Your task to perform on an android device: allow notifications from all sites in the chrome app Image 0: 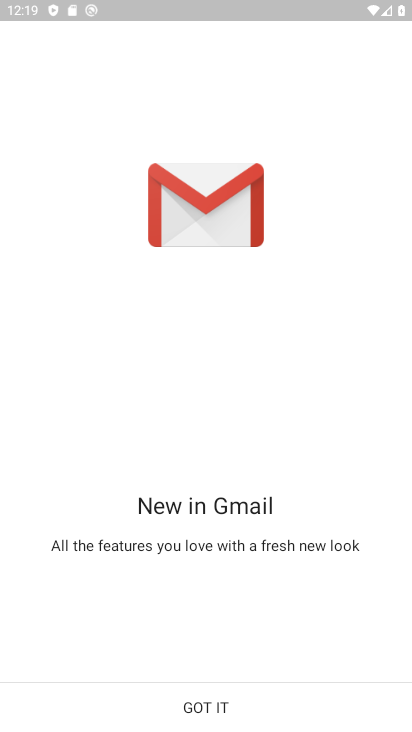
Step 0: press home button
Your task to perform on an android device: allow notifications from all sites in the chrome app Image 1: 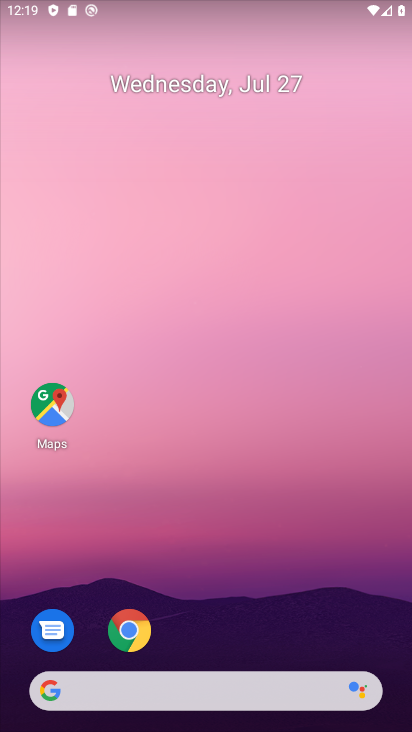
Step 1: drag from (220, 641) to (207, 107)
Your task to perform on an android device: allow notifications from all sites in the chrome app Image 2: 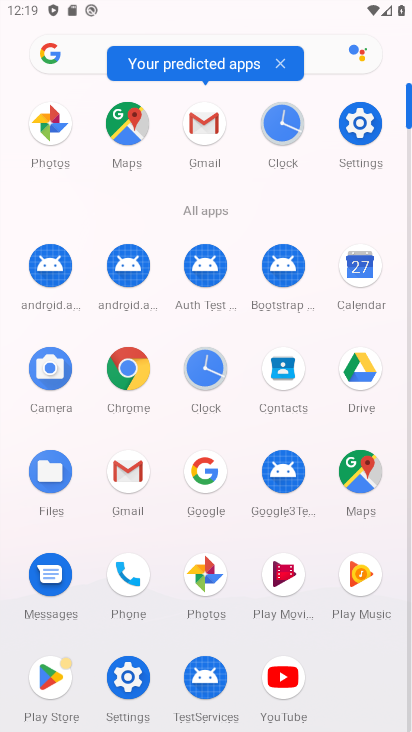
Step 2: click (115, 364)
Your task to perform on an android device: allow notifications from all sites in the chrome app Image 3: 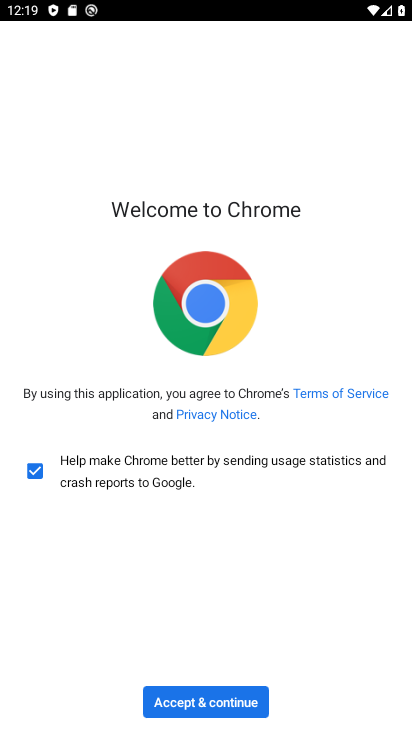
Step 3: click (211, 692)
Your task to perform on an android device: allow notifications from all sites in the chrome app Image 4: 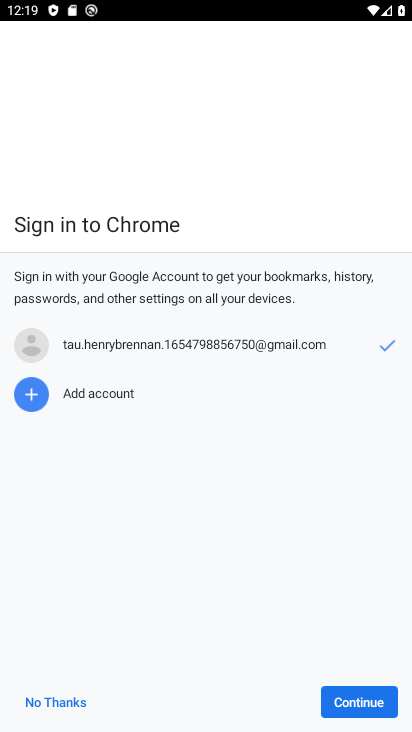
Step 4: click (329, 704)
Your task to perform on an android device: allow notifications from all sites in the chrome app Image 5: 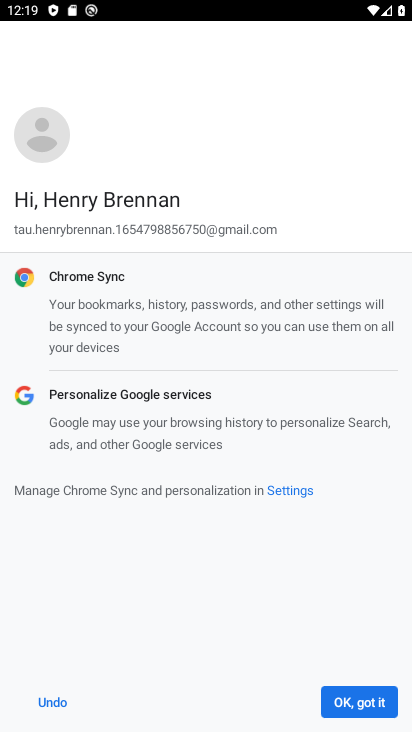
Step 5: click (329, 704)
Your task to perform on an android device: allow notifications from all sites in the chrome app Image 6: 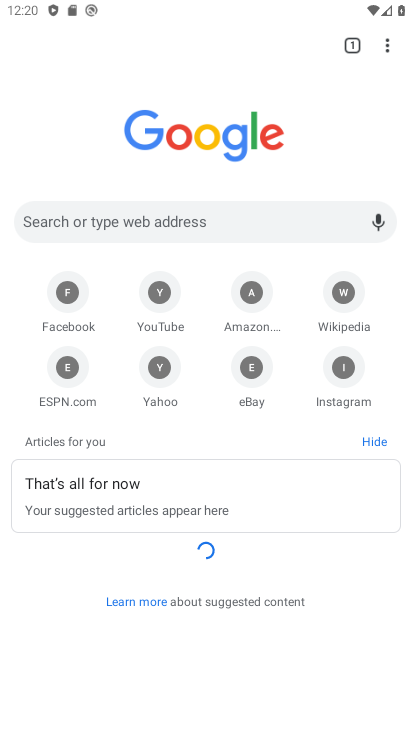
Step 6: click (385, 39)
Your task to perform on an android device: allow notifications from all sites in the chrome app Image 7: 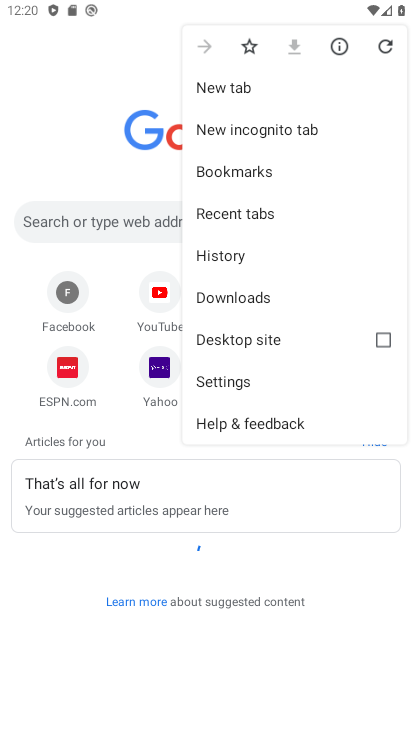
Step 7: click (227, 379)
Your task to perform on an android device: allow notifications from all sites in the chrome app Image 8: 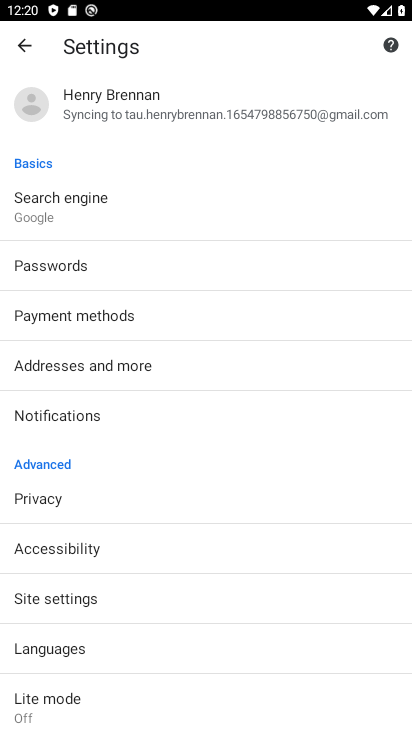
Step 8: click (46, 592)
Your task to perform on an android device: allow notifications from all sites in the chrome app Image 9: 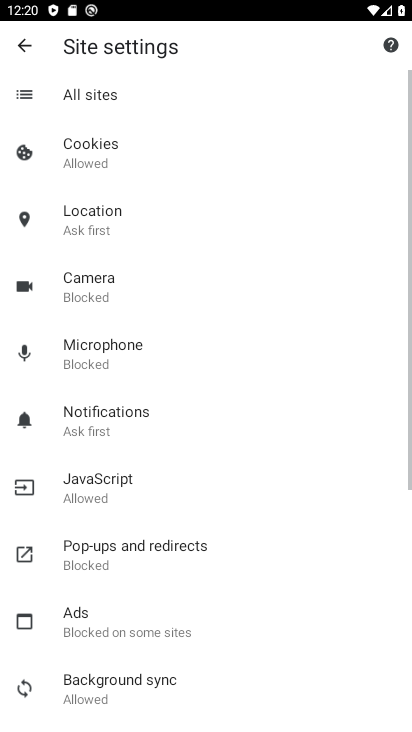
Step 9: click (108, 151)
Your task to perform on an android device: allow notifications from all sites in the chrome app Image 10: 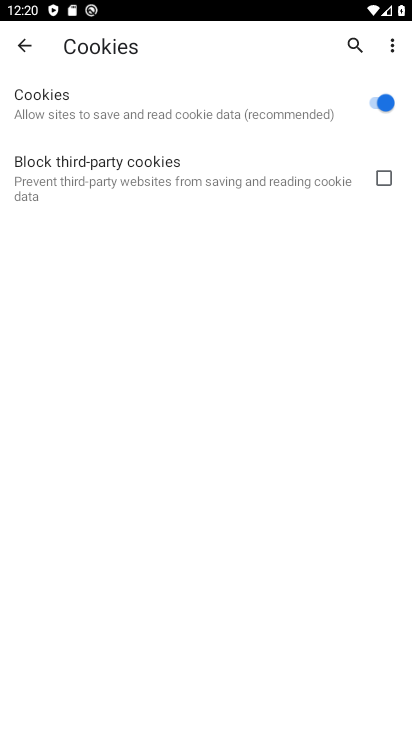
Step 10: task complete